Your task to perform on an android device: Go to Reddit.com Image 0: 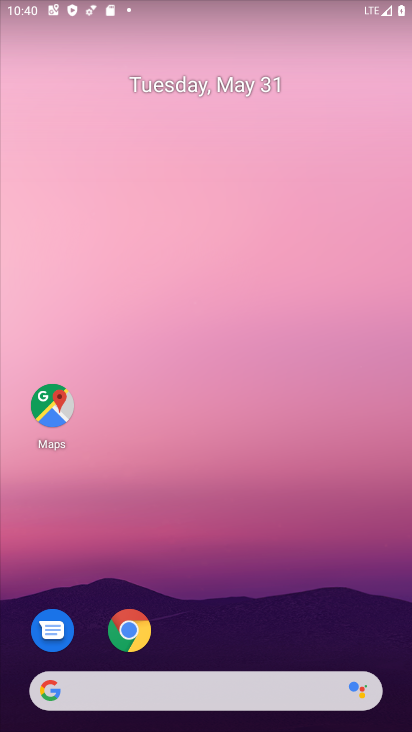
Step 0: click (288, 697)
Your task to perform on an android device: Go to Reddit.com Image 1: 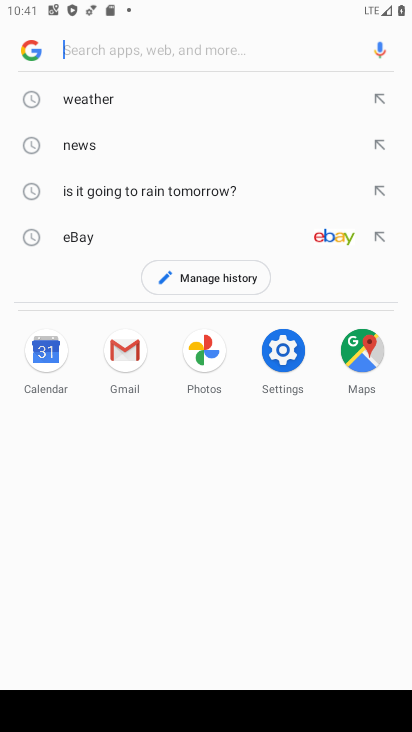
Step 1: type " Reddit.com"
Your task to perform on an android device: Go to Reddit.com Image 2: 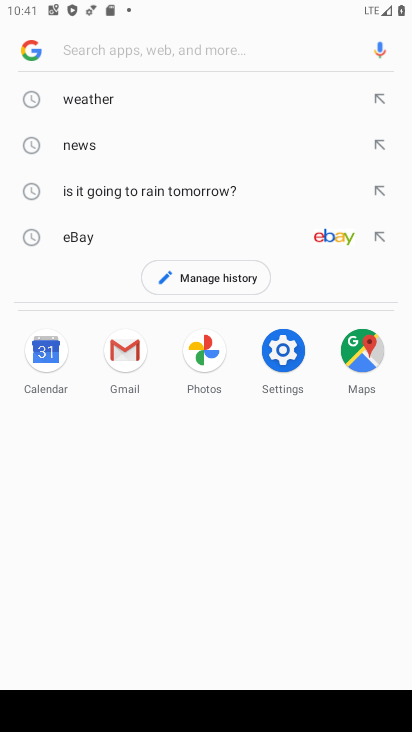
Step 2: click (153, 53)
Your task to perform on an android device: Go to Reddit.com Image 3: 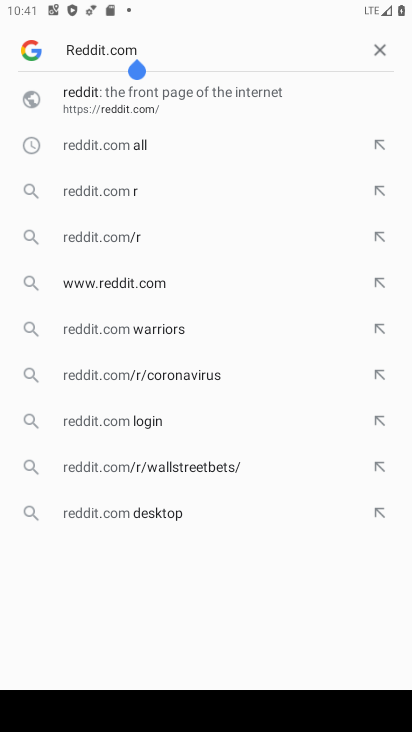
Step 3: click (132, 101)
Your task to perform on an android device: Go to Reddit.com Image 4: 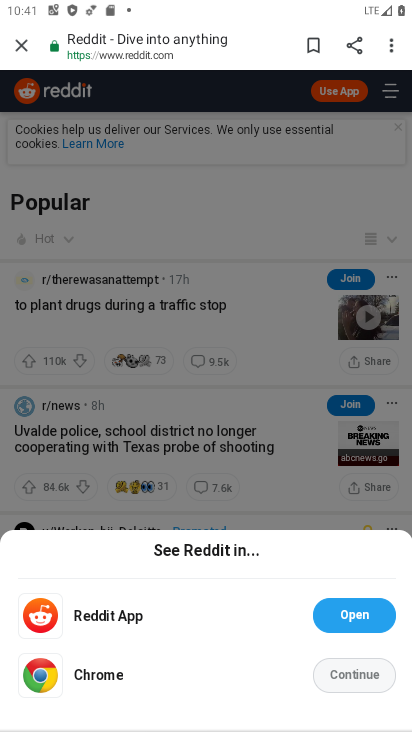
Step 4: task complete